Your task to perform on an android device: Open Google Maps Image 0: 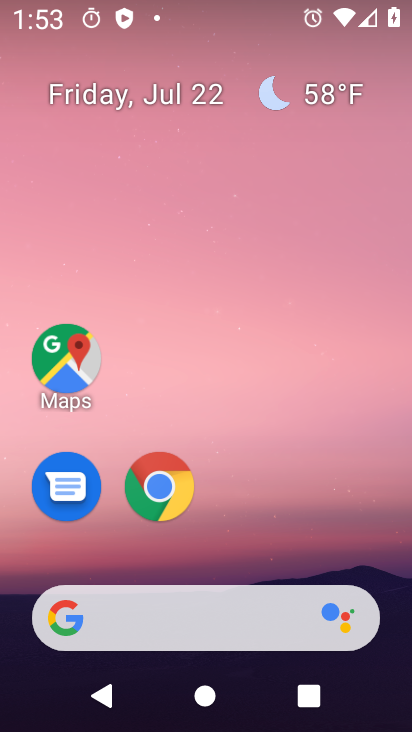
Step 0: drag from (354, 491) to (374, 45)
Your task to perform on an android device: Open Google Maps Image 1: 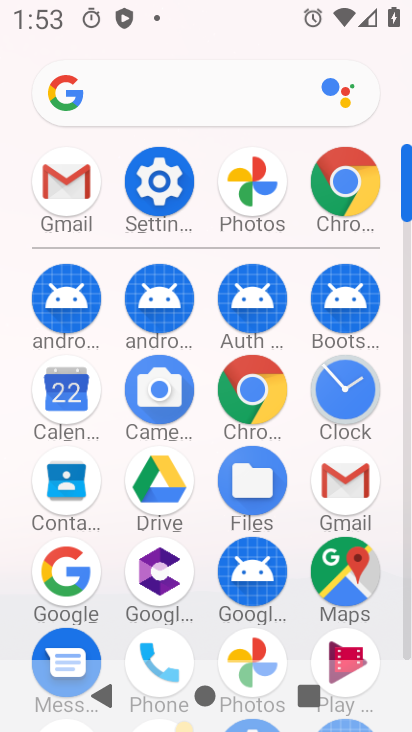
Step 1: click (347, 585)
Your task to perform on an android device: Open Google Maps Image 2: 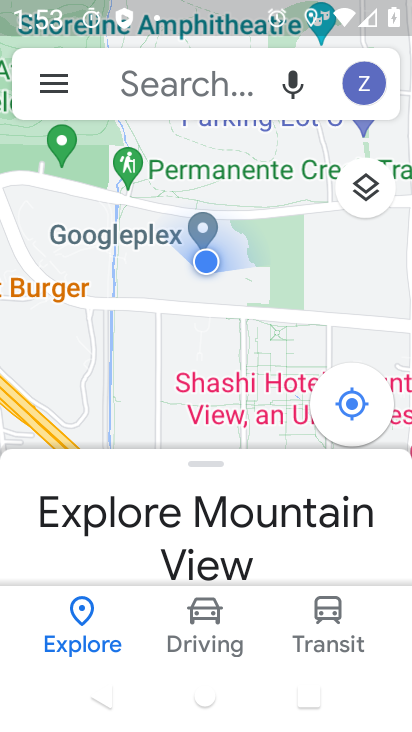
Step 2: task complete